Your task to perform on an android device: See recent photos Image 0: 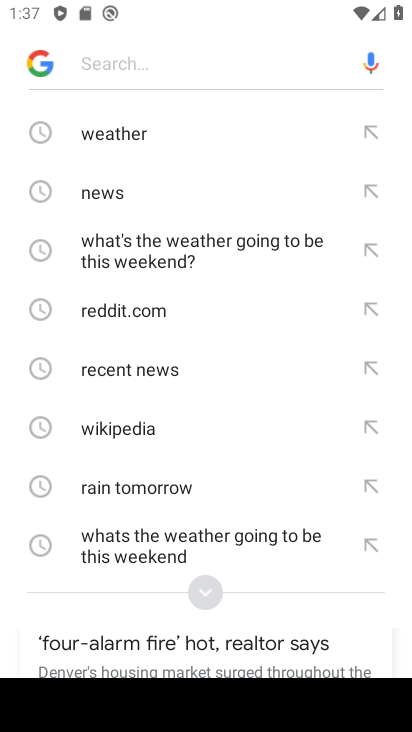
Step 0: press home button
Your task to perform on an android device: See recent photos Image 1: 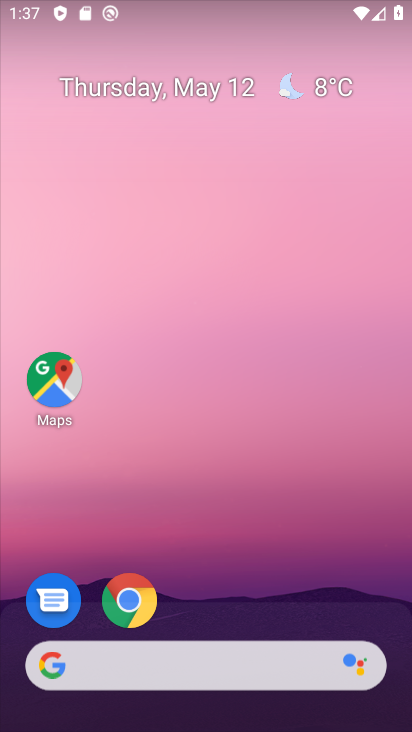
Step 1: drag from (194, 717) to (170, 102)
Your task to perform on an android device: See recent photos Image 2: 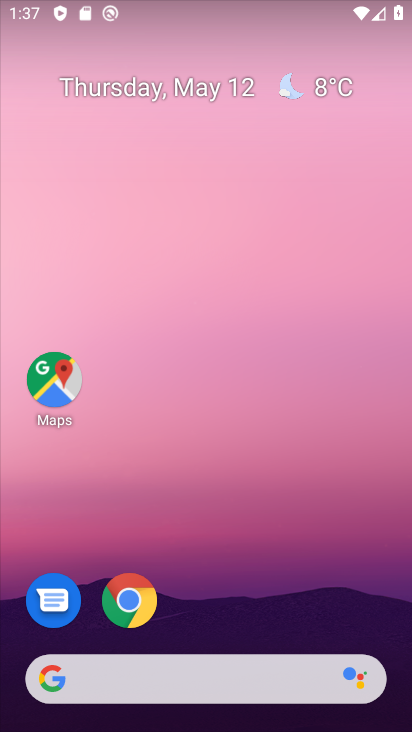
Step 2: drag from (194, 716) to (199, 2)
Your task to perform on an android device: See recent photos Image 3: 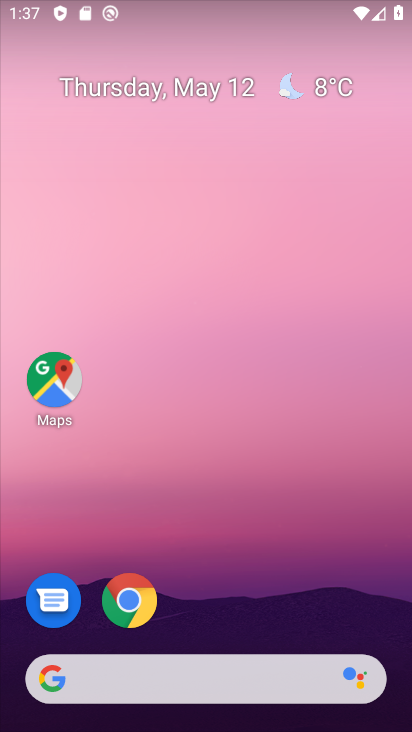
Step 3: drag from (226, 716) to (225, 104)
Your task to perform on an android device: See recent photos Image 4: 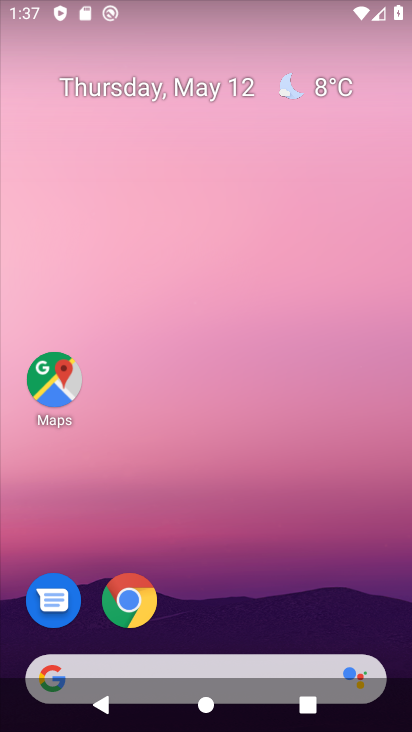
Step 4: drag from (238, 724) to (237, 207)
Your task to perform on an android device: See recent photos Image 5: 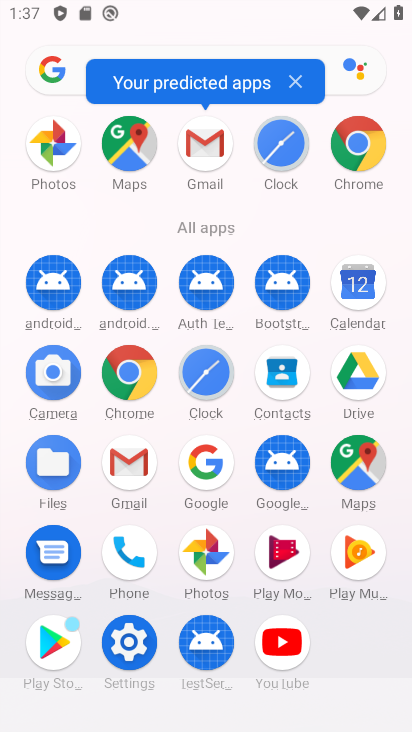
Step 5: click (57, 146)
Your task to perform on an android device: See recent photos Image 6: 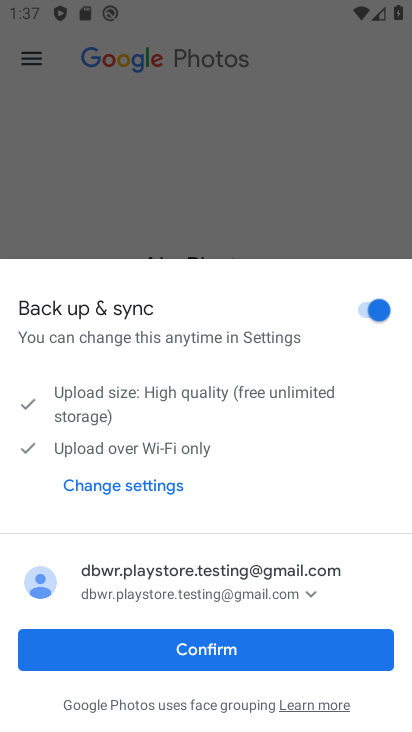
Step 6: click (200, 646)
Your task to perform on an android device: See recent photos Image 7: 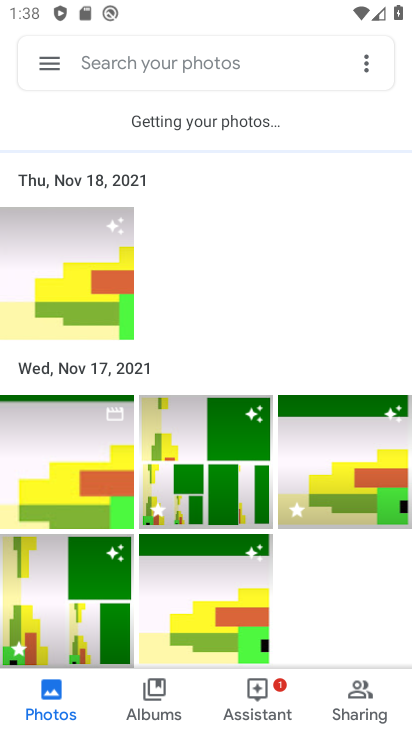
Step 7: click (86, 269)
Your task to perform on an android device: See recent photos Image 8: 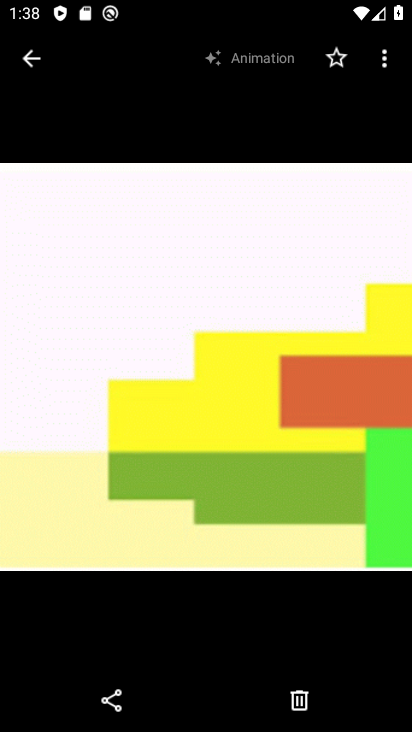
Step 8: task complete